Your task to perform on an android device: find snoozed emails in the gmail app Image 0: 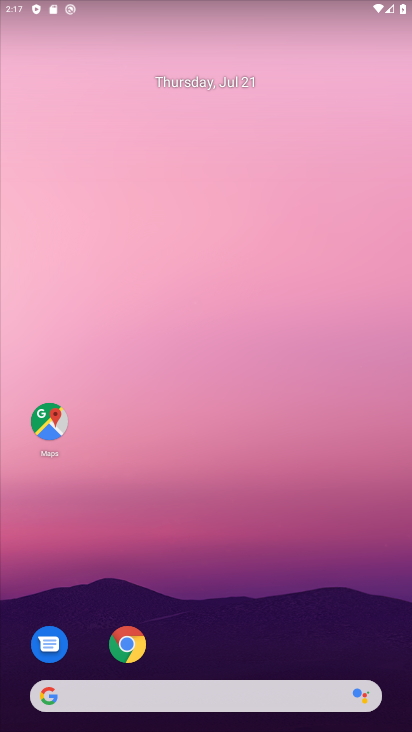
Step 0: drag from (257, 646) to (195, 152)
Your task to perform on an android device: find snoozed emails in the gmail app Image 1: 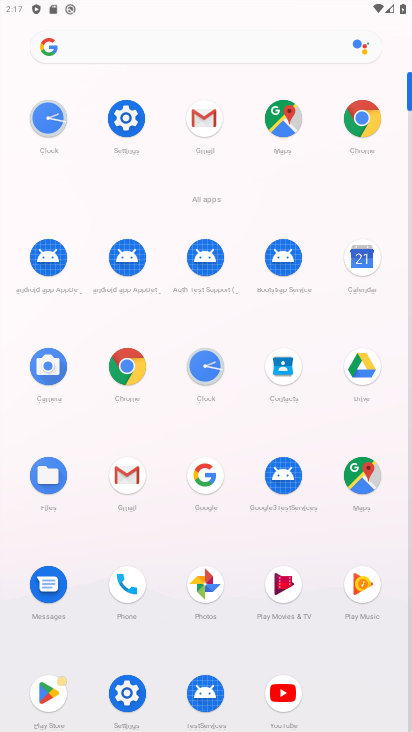
Step 1: click (211, 118)
Your task to perform on an android device: find snoozed emails in the gmail app Image 2: 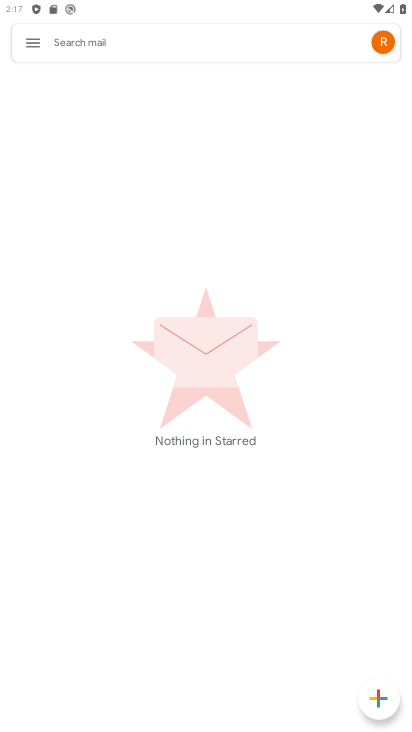
Step 2: click (39, 44)
Your task to perform on an android device: find snoozed emails in the gmail app Image 3: 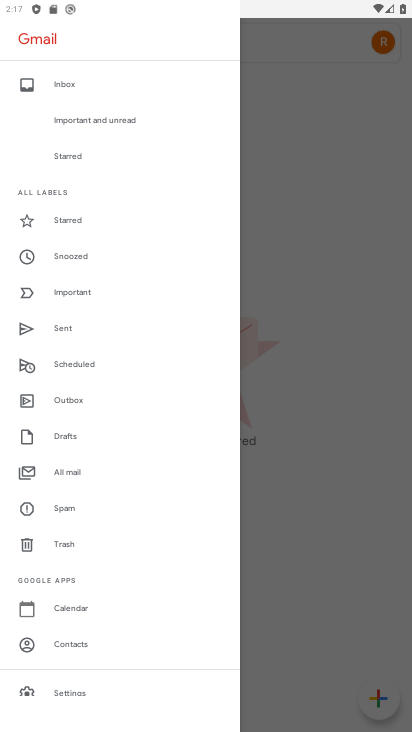
Step 3: click (104, 259)
Your task to perform on an android device: find snoozed emails in the gmail app Image 4: 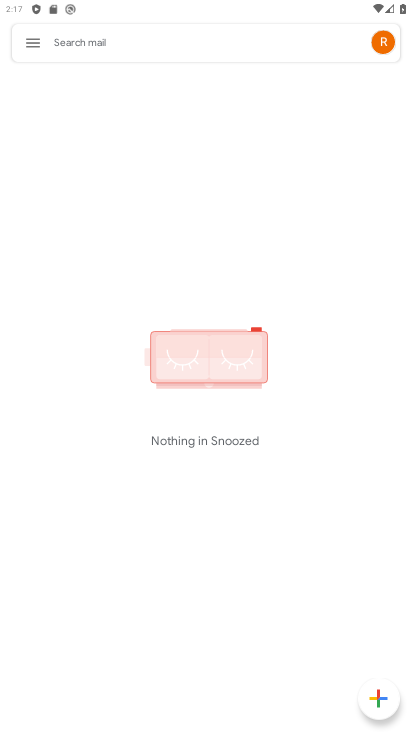
Step 4: task complete